Your task to perform on an android device: change notification settings in the gmail app Image 0: 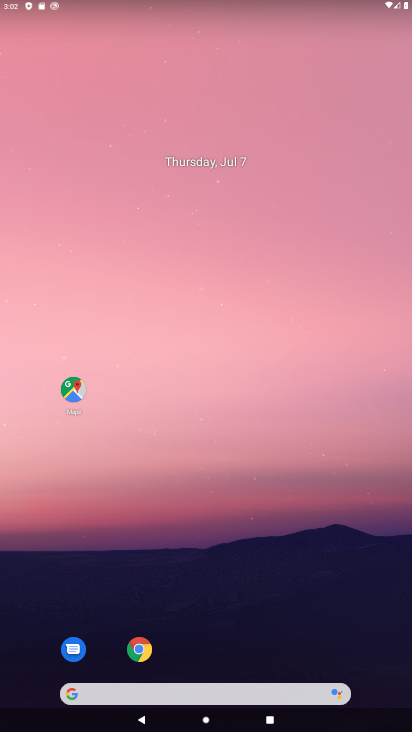
Step 0: drag from (233, 547) to (312, 266)
Your task to perform on an android device: change notification settings in the gmail app Image 1: 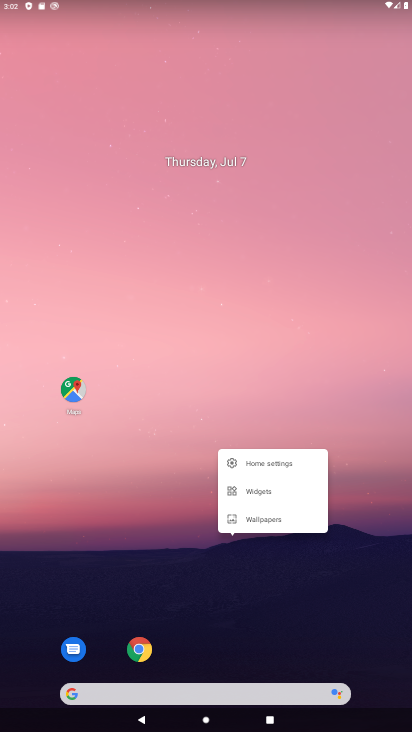
Step 1: click (259, 587)
Your task to perform on an android device: change notification settings in the gmail app Image 2: 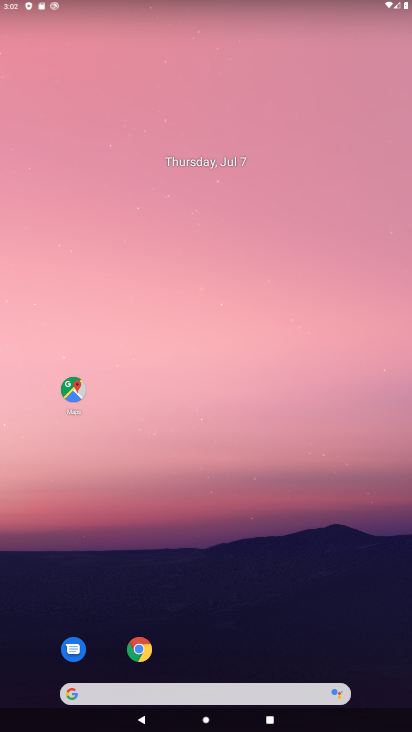
Step 2: click (259, 587)
Your task to perform on an android device: change notification settings in the gmail app Image 3: 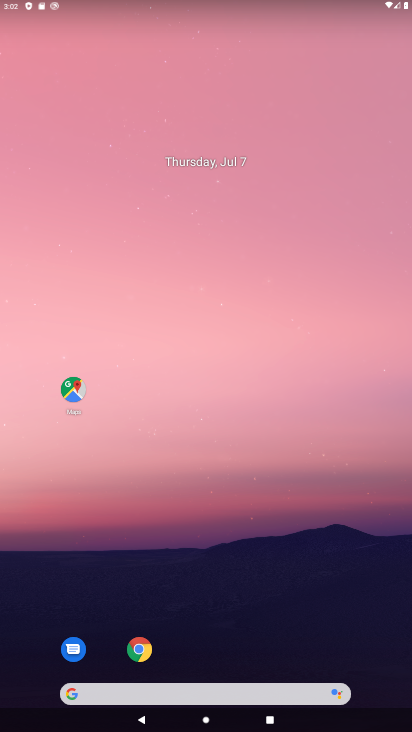
Step 3: drag from (260, 643) to (410, 523)
Your task to perform on an android device: change notification settings in the gmail app Image 4: 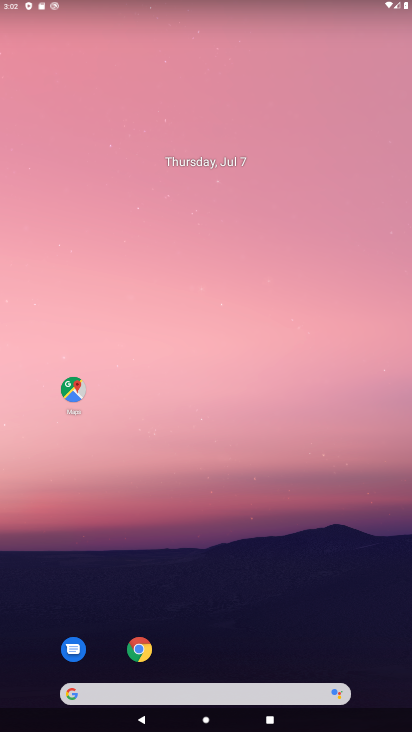
Step 4: drag from (298, 651) to (344, 254)
Your task to perform on an android device: change notification settings in the gmail app Image 5: 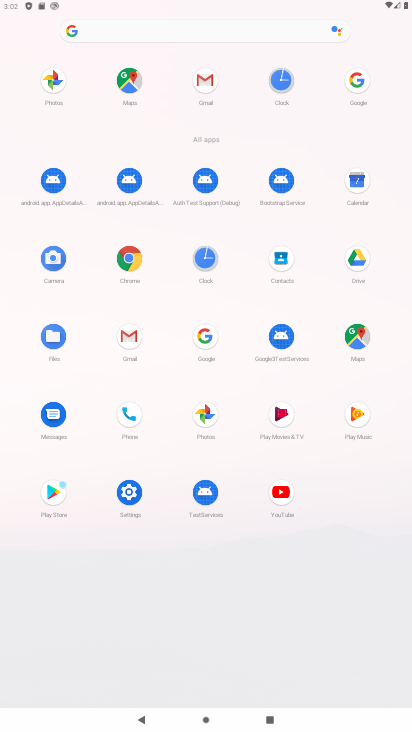
Step 5: click (129, 357)
Your task to perform on an android device: change notification settings in the gmail app Image 6: 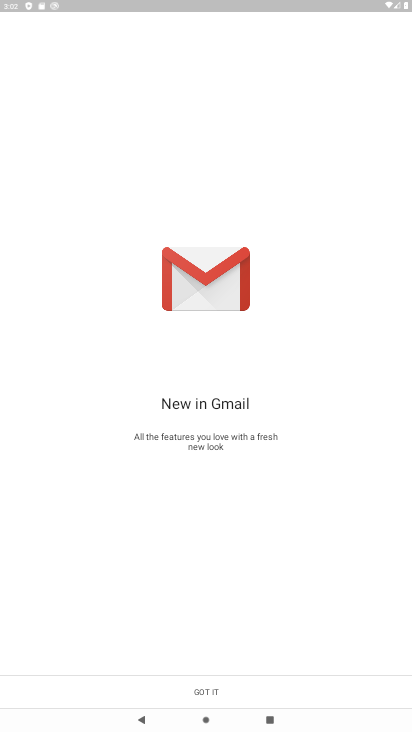
Step 6: click (216, 693)
Your task to perform on an android device: change notification settings in the gmail app Image 7: 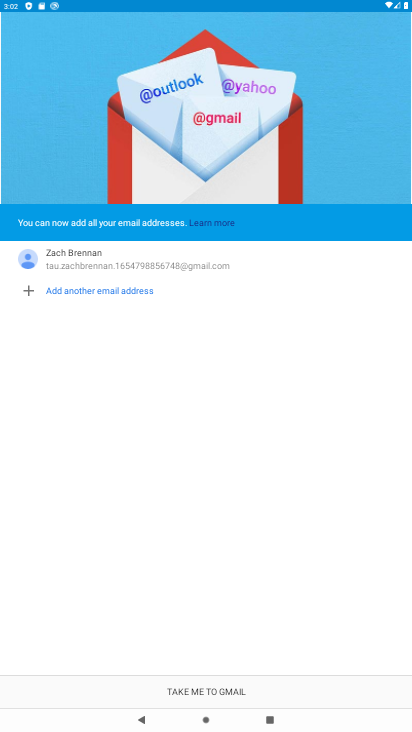
Step 7: click (216, 693)
Your task to perform on an android device: change notification settings in the gmail app Image 8: 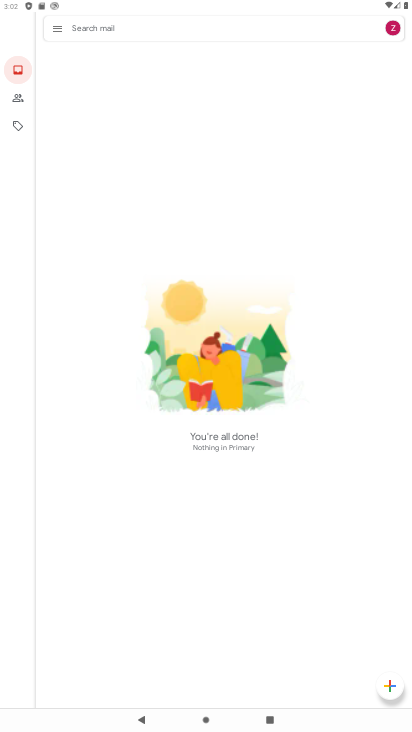
Step 8: click (58, 33)
Your task to perform on an android device: change notification settings in the gmail app Image 9: 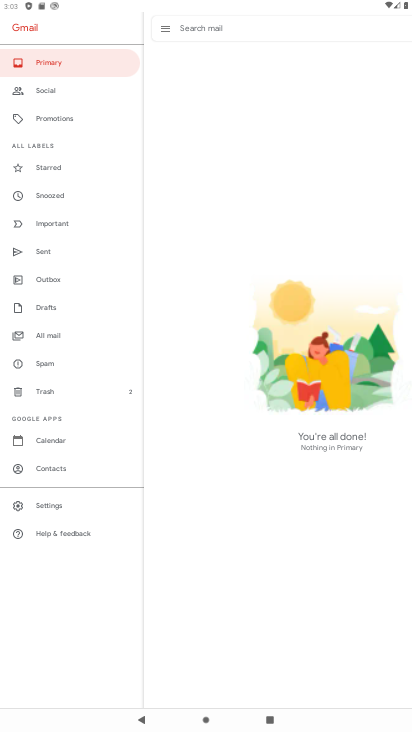
Step 9: click (65, 509)
Your task to perform on an android device: change notification settings in the gmail app Image 10: 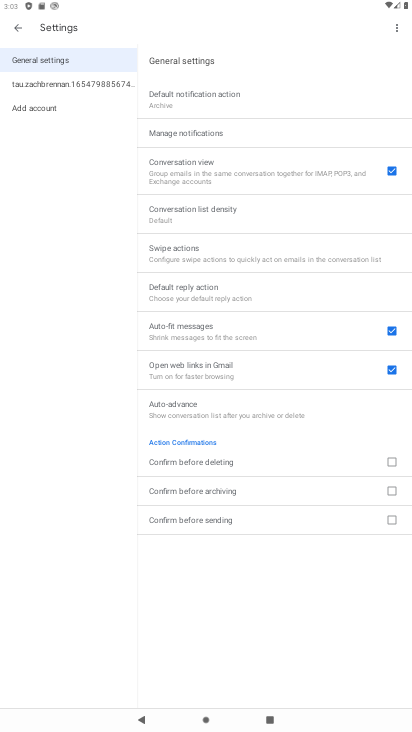
Step 10: click (217, 133)
Your task to perform on an android device: change notification settings in the gmail app Image 11: 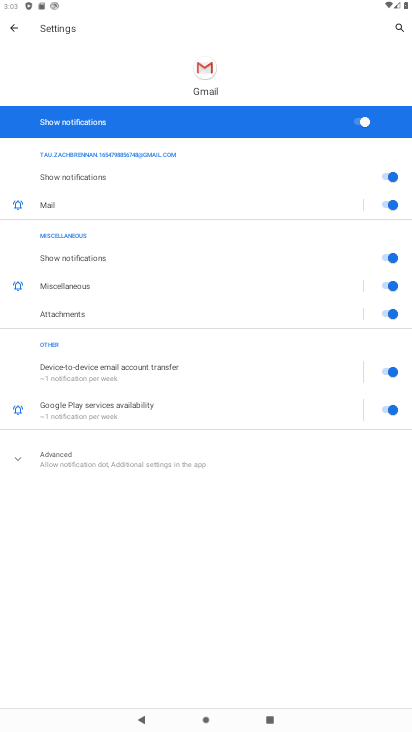
Step 11: click (354, 127)
Your task to perform on an android device: change notification settings in the gmail app Image 12: 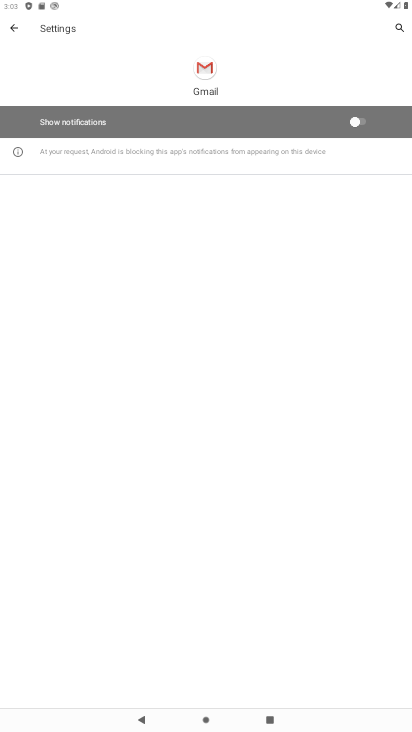
Step 12: task complete